Your task to perform on an android device: open app "Chime – Mobile Banking" (install if not already installed) and go to login screen Image 0: 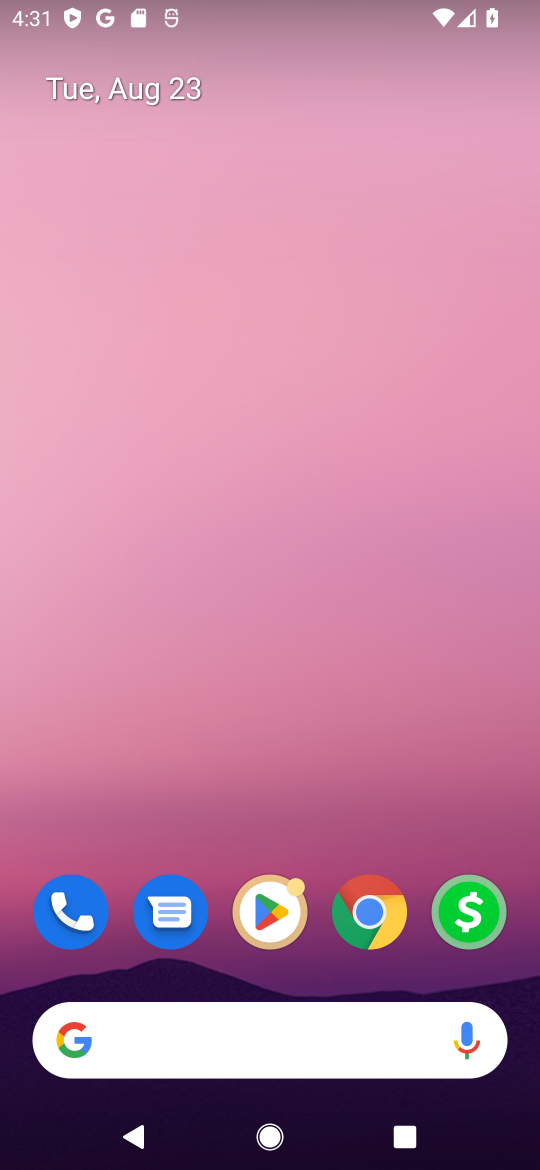
Step 0: drag from (218, 947) to (280, 281)
Your task to perform on an android device: open app "Chime – Mobile Banking" (install if not already installed) and go to login screen Image 1: 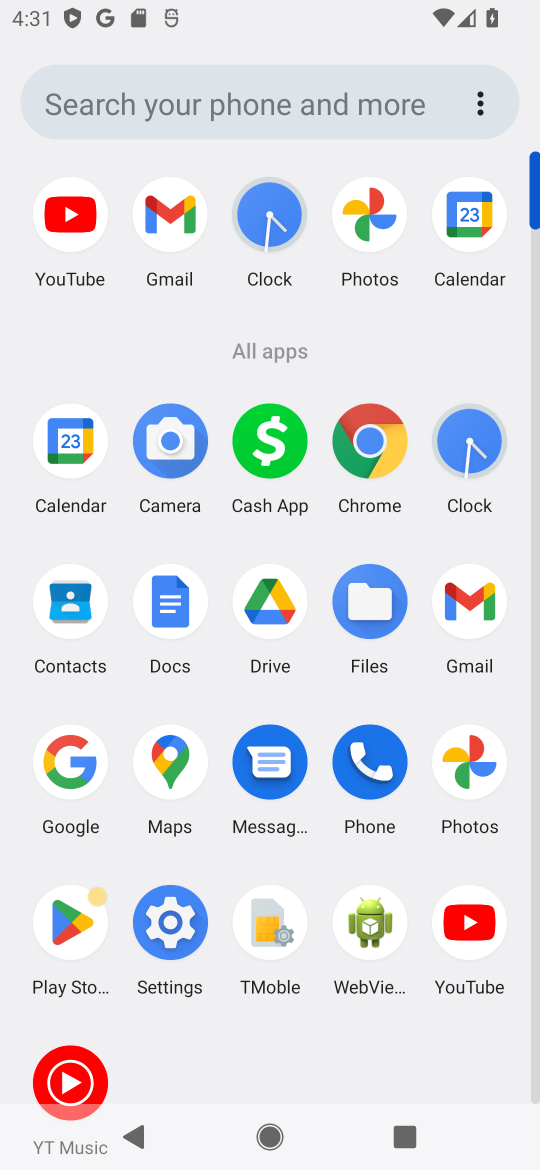
Step 1: click (77, 909)
Your task to perform on an android device: open app "Chime – Mobile Banking" (install if not already installed) and go to login screen Image 2: 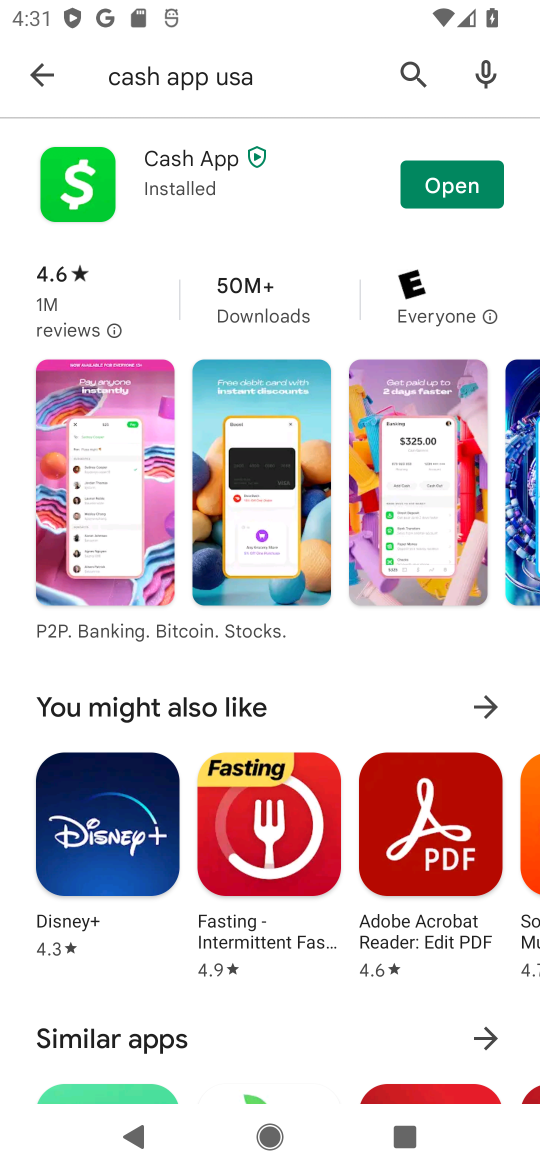
Step 2: click (72, 65)
Your task to perform on an android device: open app "Chime – Mobile Banking" (install if not already installed) and go to login screen Image 3: 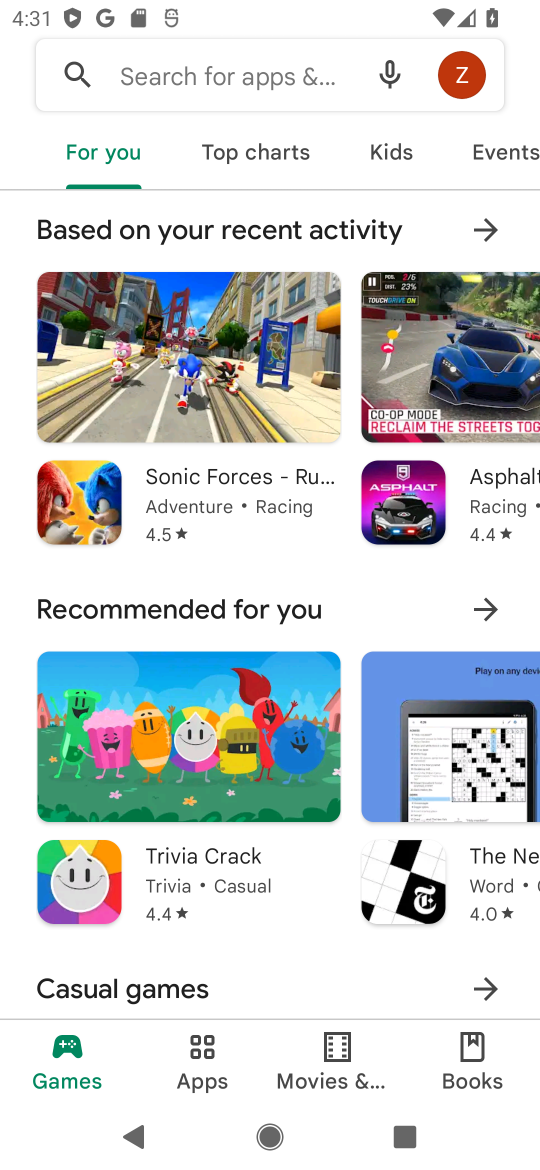
Step 3: click (179, 75)
Your task to perform on an android device: open app "Chime – Mobile Banking" (install if not already installed) and go to login screen Image 4: 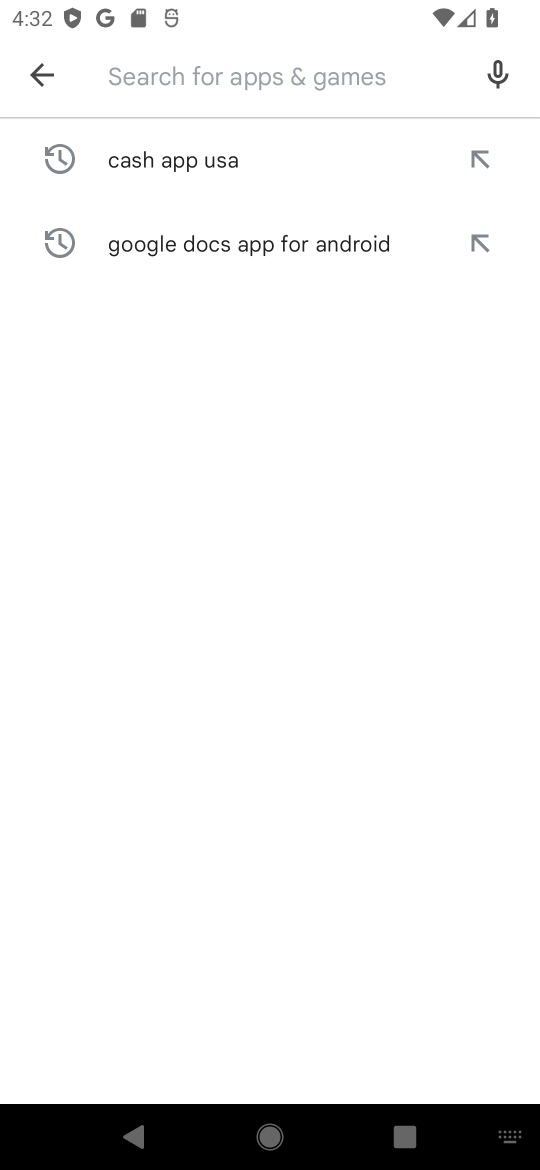
Step 4: click (292, 68)
Your task to perform on an android device: open app "Chime – Mobile Banking" (install if not already installed) and go to login screen Image 5: 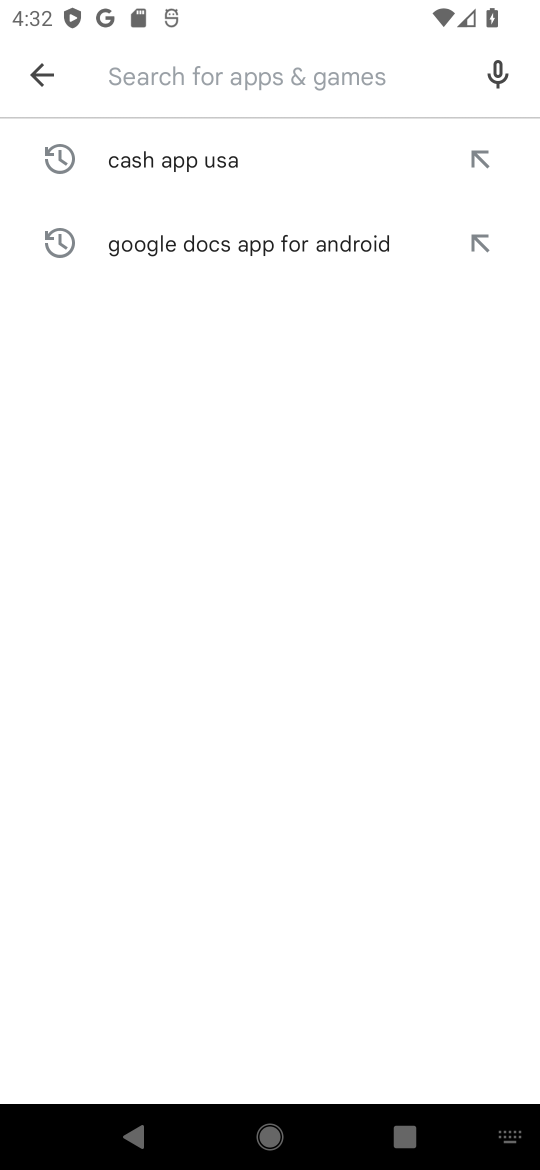
Step 5: type "Chime – Mobile Banking "
Your task to perform on an android device: open app "Chime – Mobile Banking" (install if not already installed) and go to login screen Image 6: 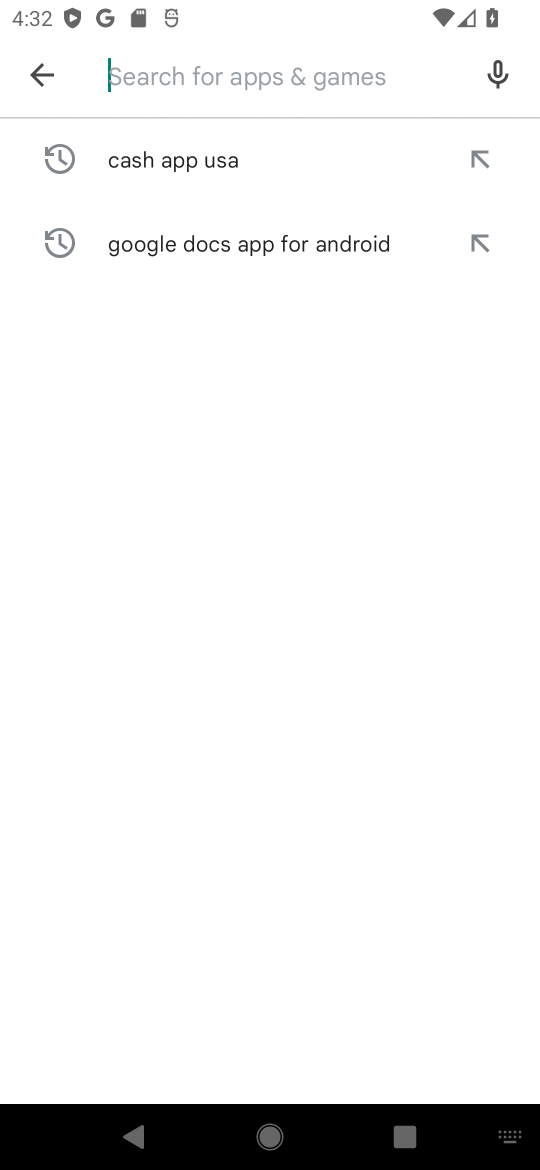
Step 6: click (222, 75)
Your task to perform on an android device: open app "Chime – Mobile Banking" (install if not already installed) and go to login screen Image 7: 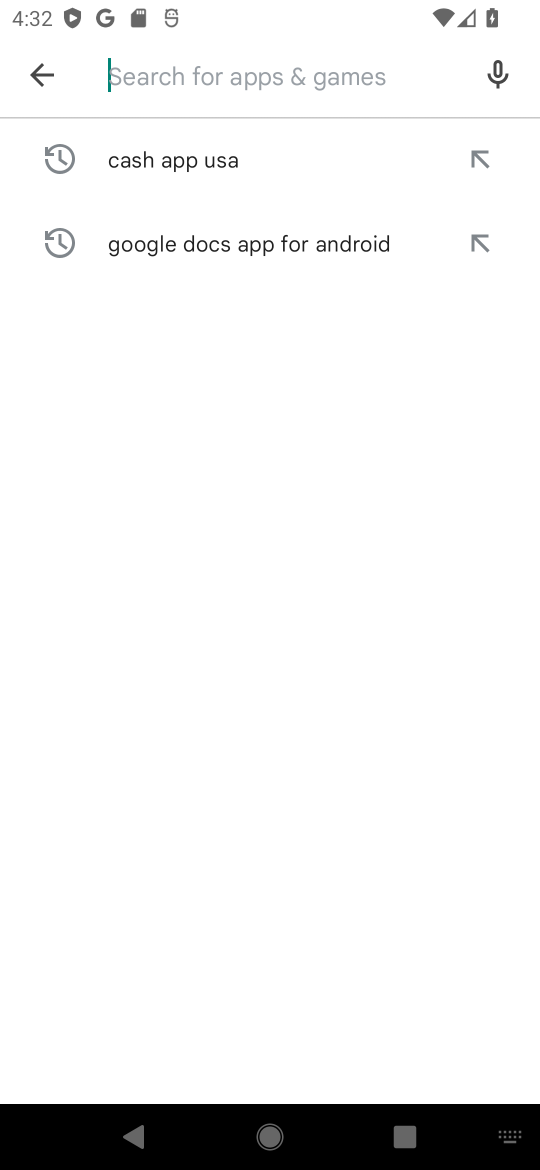
Step 7: type "Chime – Mobile Banking "
Your task to perform on an android device: open app "Chime – Mobile Banking" (install if not already installed) and go to login screen Image 8: 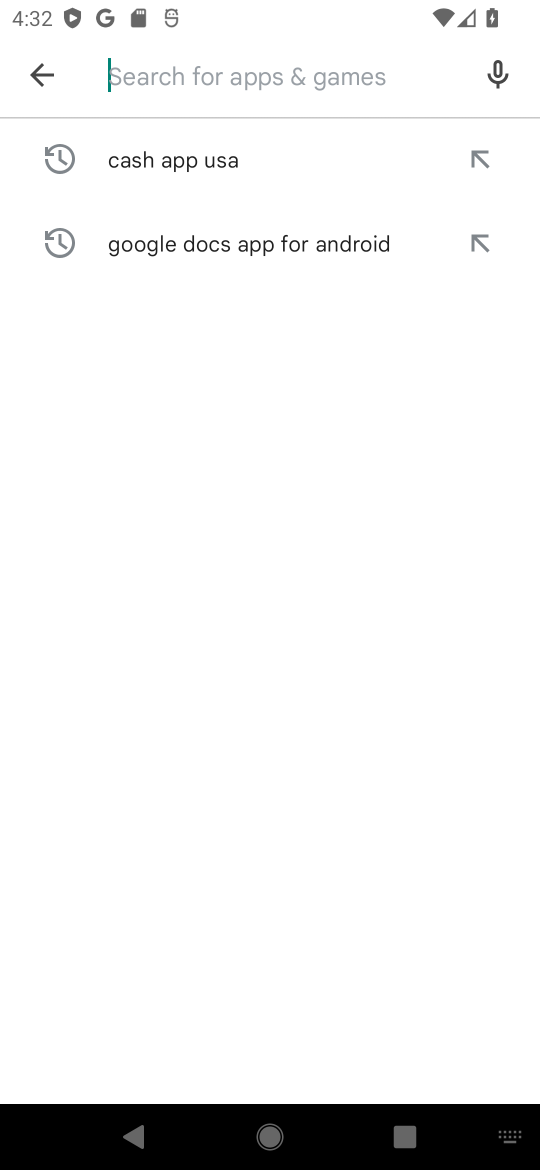
Step 8: click (202, 62)
Your task to perform on an android device: open app "Chime – Mobile Banking" (install if not already installed) and go to login screen Image 9: 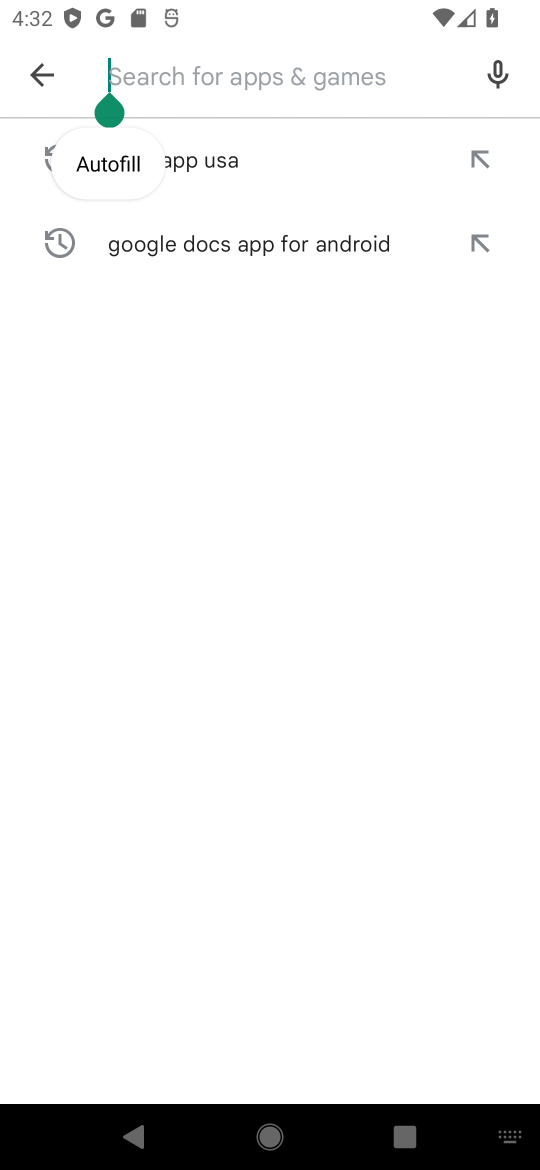
Step 9: type "Chime – Mobile Banking "
Your task to perform on an android device: open app "Chime – Mobile Banking" (install if not already installed) and go to login screen Image 10: 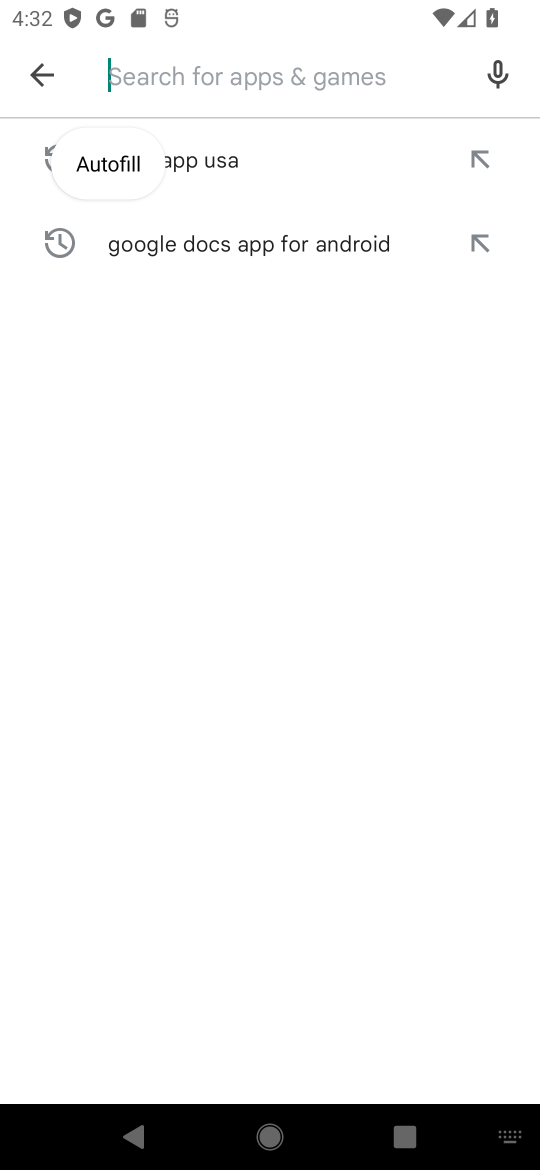
Step 10: click (166, 71)
Your task to perform on an android device: open app "Chime – Mobile Banking" (install if not already installed) and go to login screen Image 11: 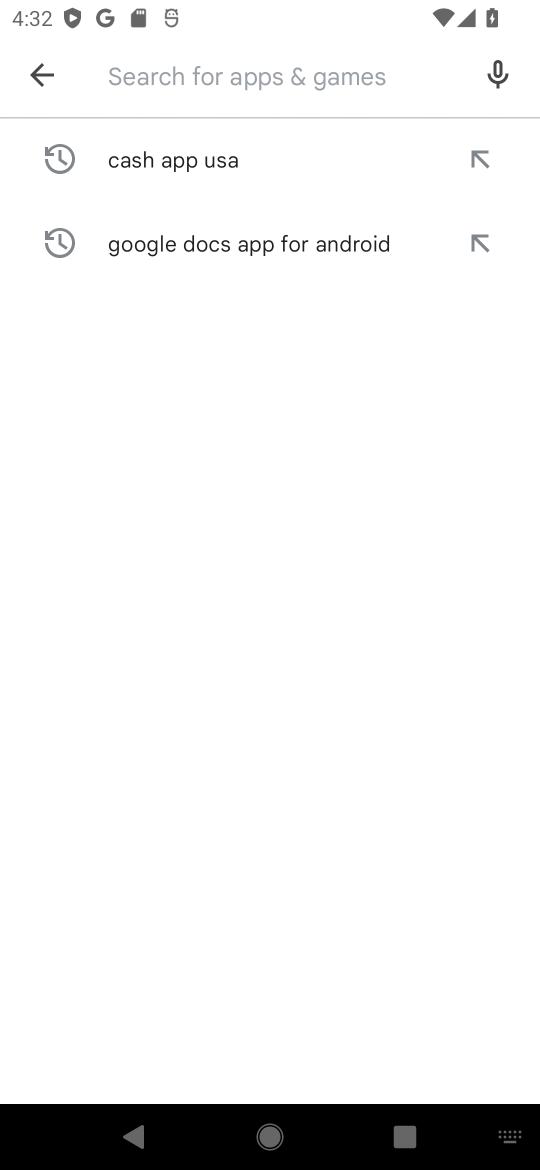
Step 11: type "chime "
Your task to perform on an android device: open app "Chime – Mobile Banking" (install if not already installed) and go to login screen Image 12: 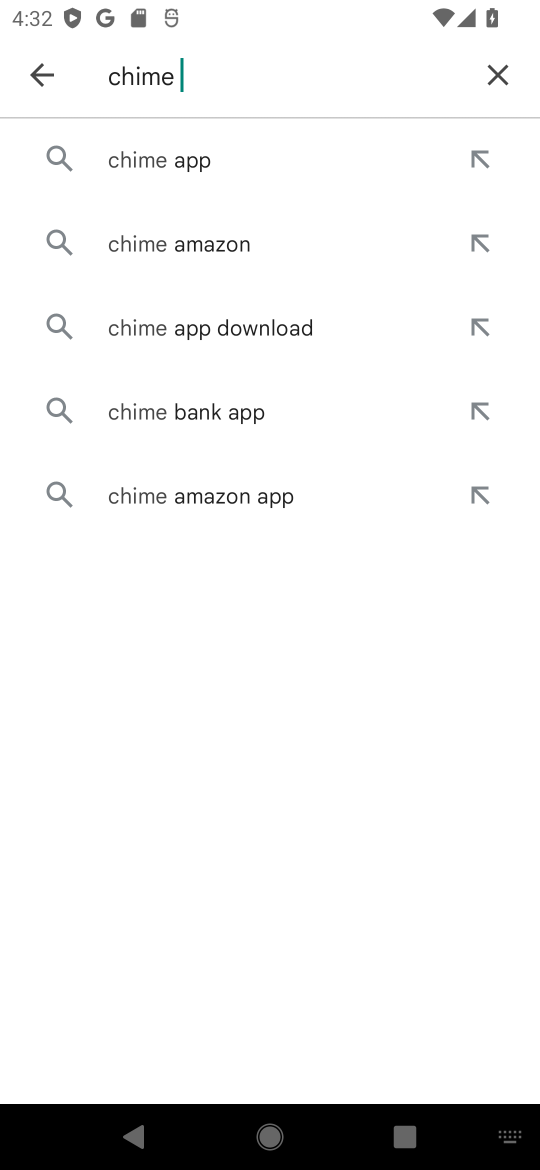
Step 12: click (118, 143)
Your task to perform on an android device: open app "Chime – Mobile Banking" (install if not already installed) and go to login screen Image 13: 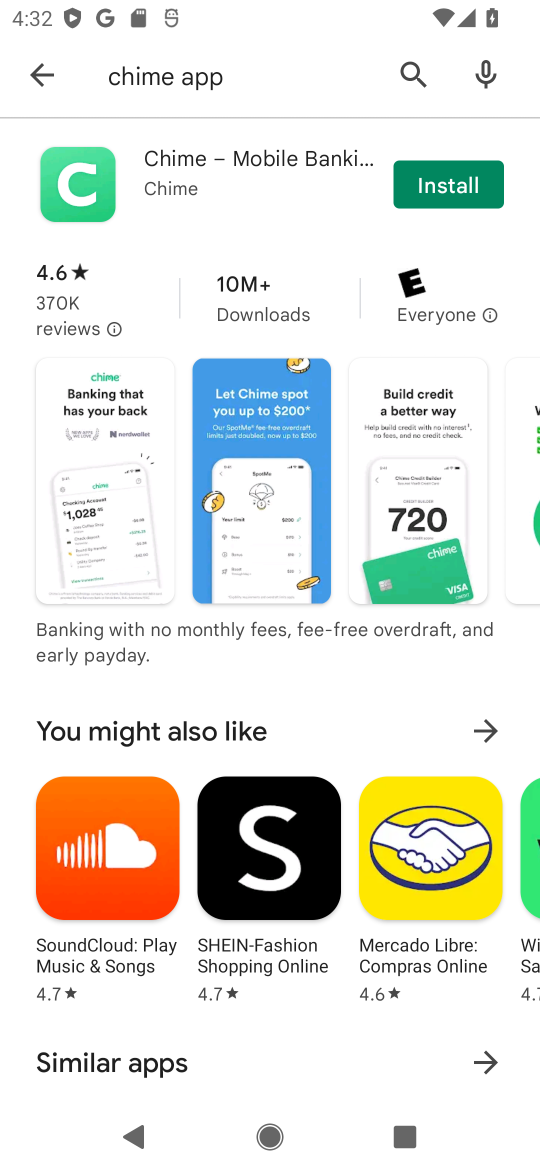
Step 13: click (424, 174)
Your task to perform on an android device: open app "Chime – Mobile Banking" (install if not already installed) and go to login screen Image 14: 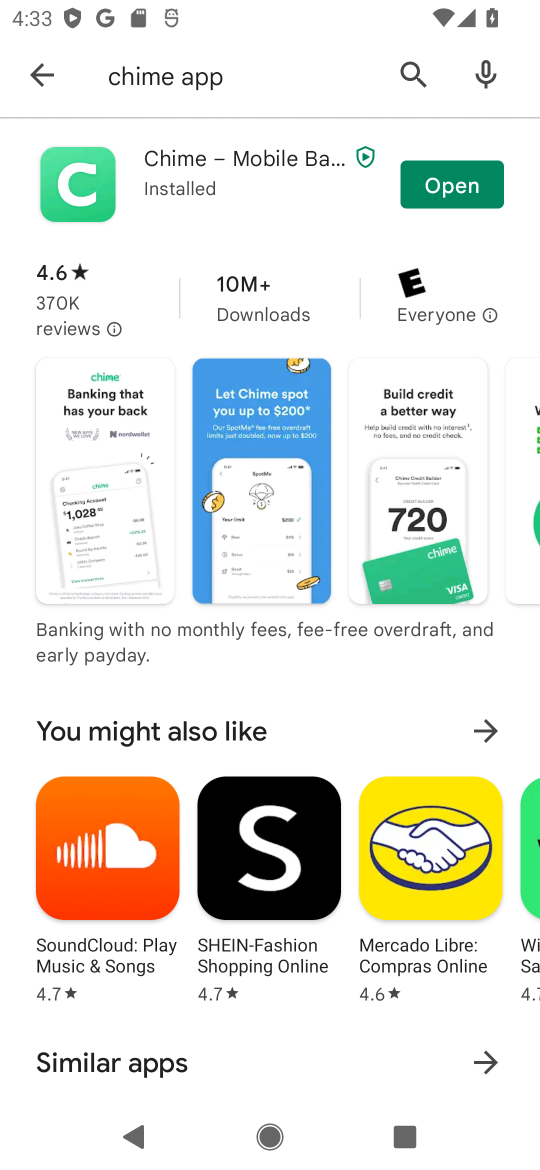
Step 14: click (424, 174)
Your task to perform on an android device: open app "Chime – Mobile Banking" (install if not already installed) and go to login screen Image 15: 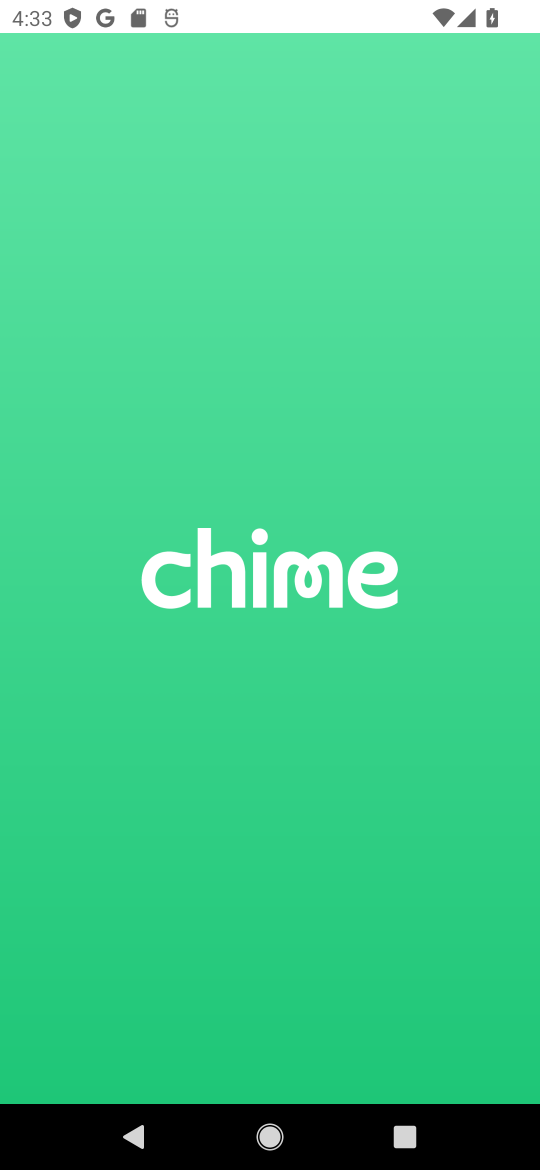
Step 15: task complete